Your task to perform on an android device: Open Google Maps Image 0: 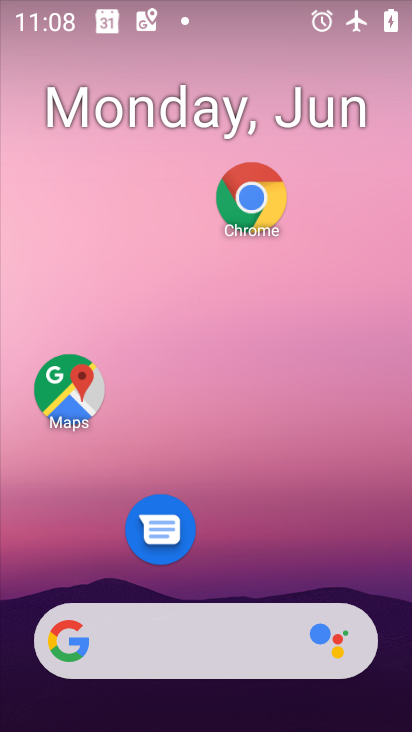
Step 0: click (92, 371)
Your task to perform on an android device: Open Google Maps Image 1: 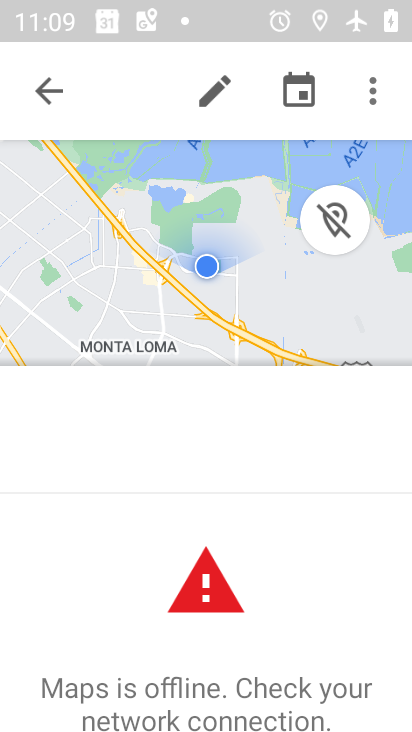
Step 1: click (39, 95)
Your task to perform on an android device: Open Google Maps Image 2: 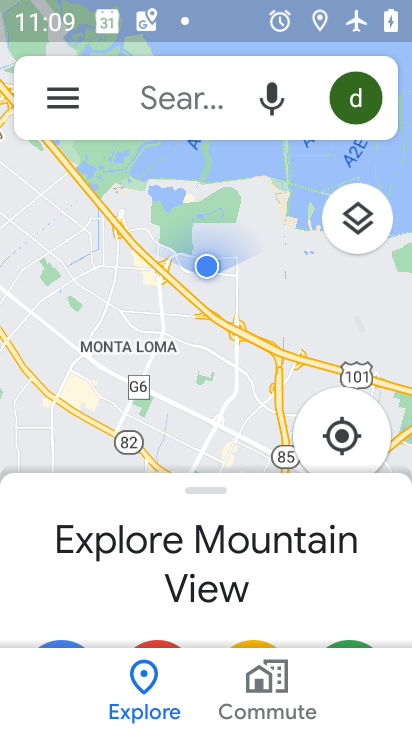
Step 2: click (197, 84)
Your task to perform on an android device: Open Google Maps Image 3: 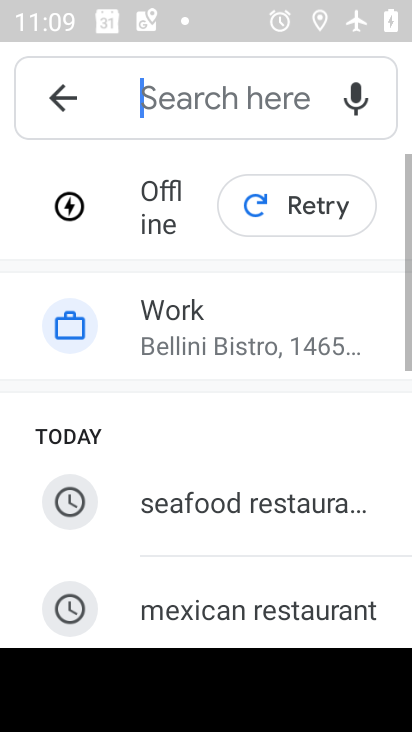
Step 3: task complete